Your task to perform on an android device: Open Youtube and go to "Your channel" Image 0: 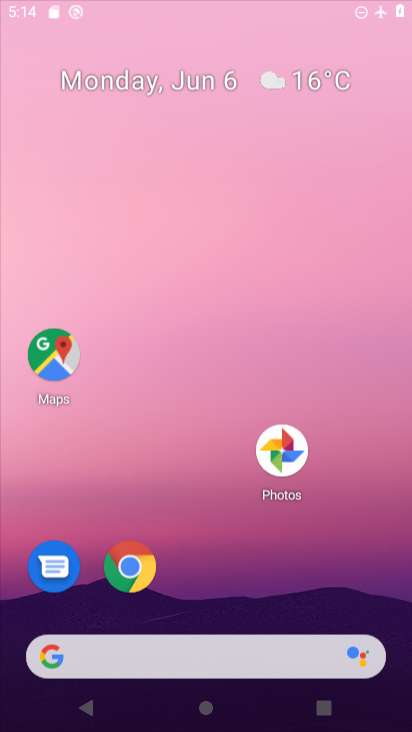
Step 0: click (249, 119)
Your task to perform on an android device: Open Youtube and go to "Your channel" Image 1: 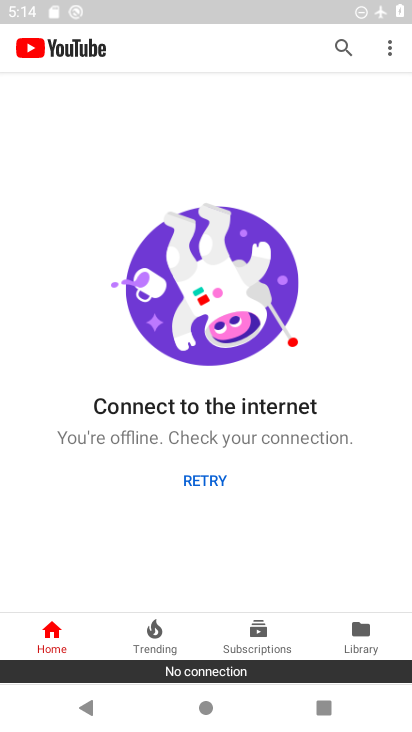
Step 1: drag from (213, 0) to (155, 125)
Your task to perform on an android device: Open Youtube and go to "Your channel" Image 2: 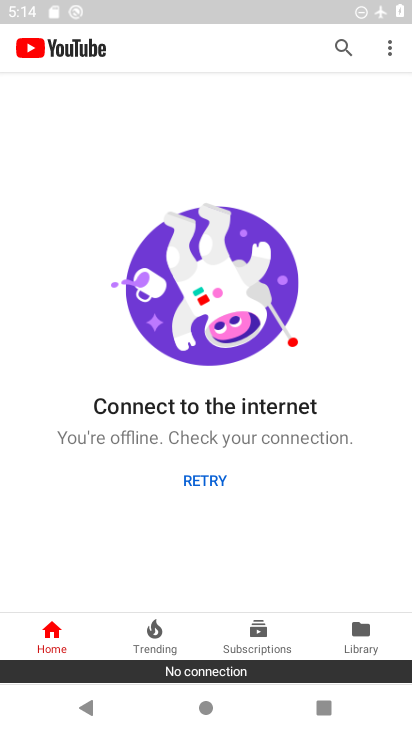
Step 2: click (36, 51)
Your task to perform on an android device: Open Youtube and go to "Your channel" Image 3: 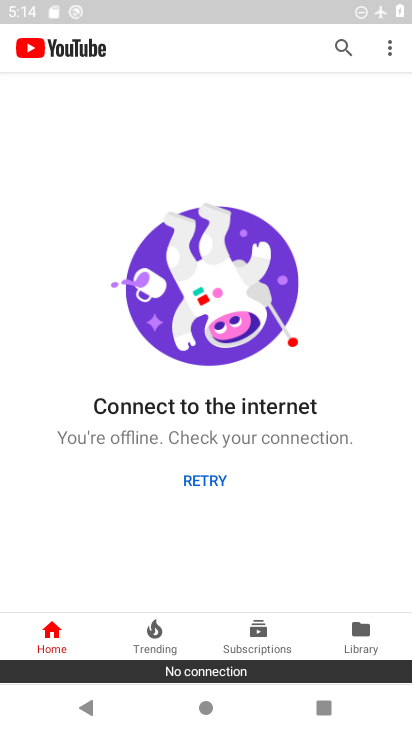
Step 3: task complete